Your task to perform on an android device: See recent photos Image 0: 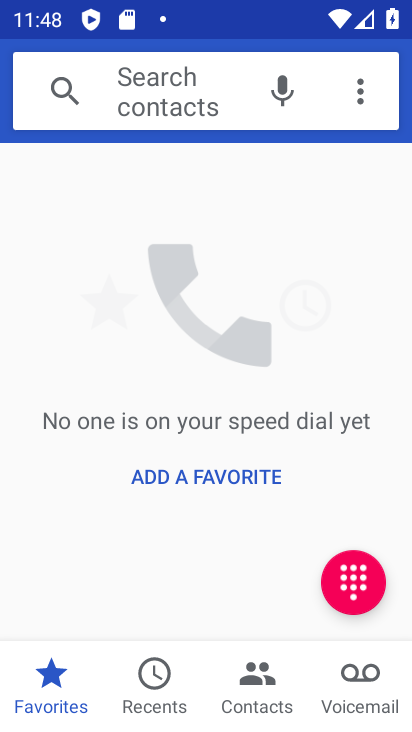
Step 0: press home button
Your task to perform on an android device: See recent photos Image 1: 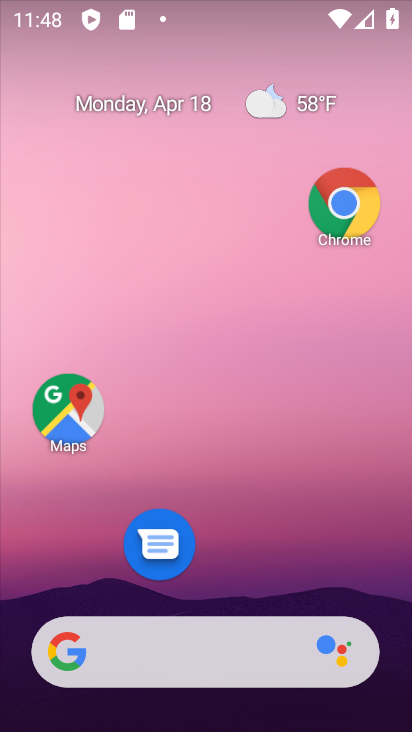
Step 1: drag from (260, 579) to (254, 40)
Your task to perform on an android device: See recent photos Image 2: 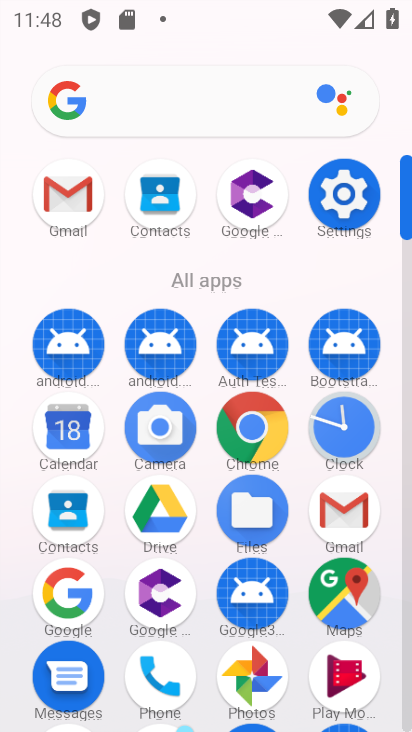
Step 2: click (261, 664)
Your task to perform on an android device: See recent photos Image 3: 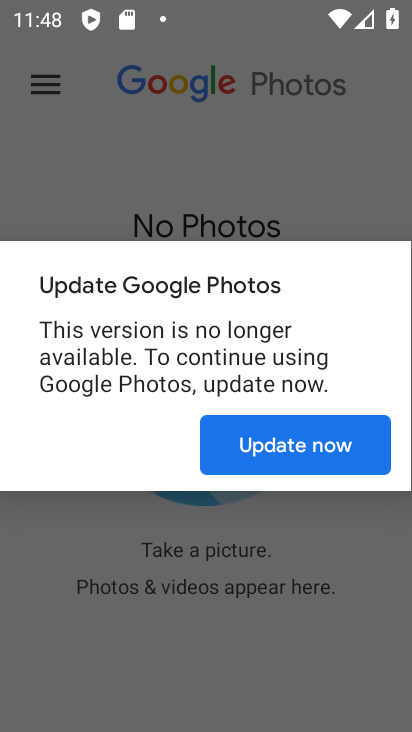
Step 3: click (324, 448)
Your task to perform on an android device: See recent photos Image 4: 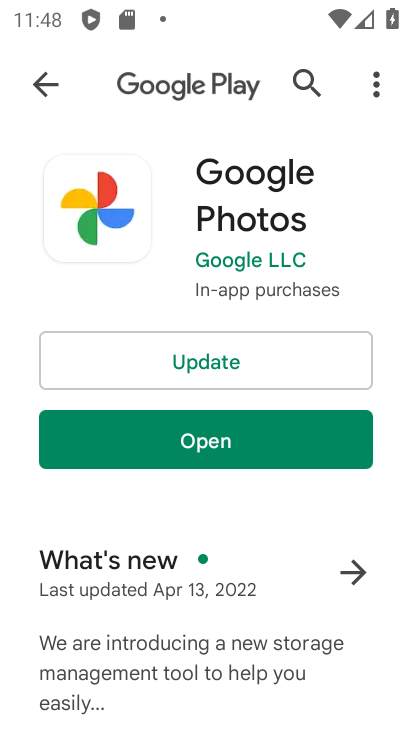
Step 4: click (231, 357)
Your task to perform on an android device: See recent photos Image 5: 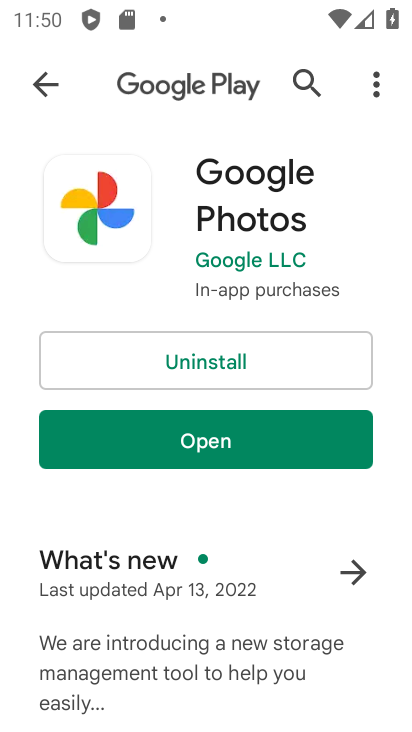
Step 5: click (232, 435)
Your task to perform on an android device: See recent photos Image 6: 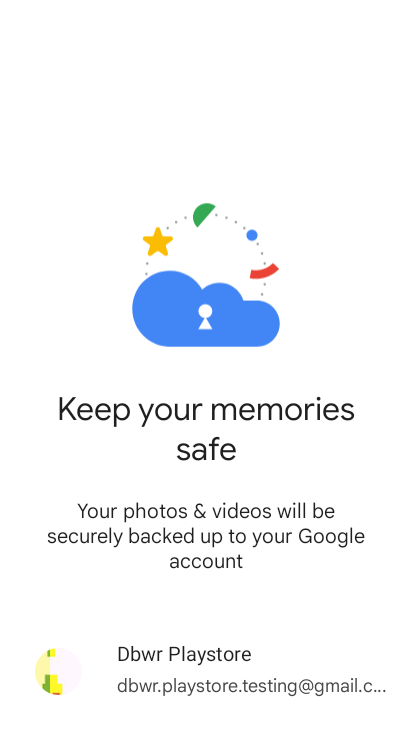
Step 6: drag from (306, 611) to (327, 272)
Your task to perform on an android device: See recent photos Image 7: 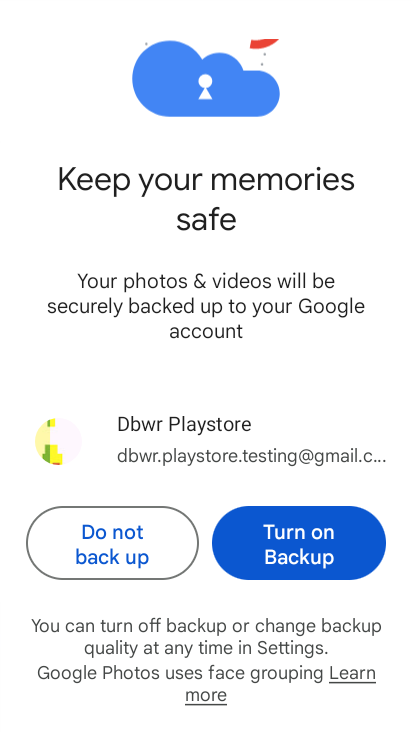
Step 7: click (314, 537)
Your task to perform on an android device: See recent photos Image 8: 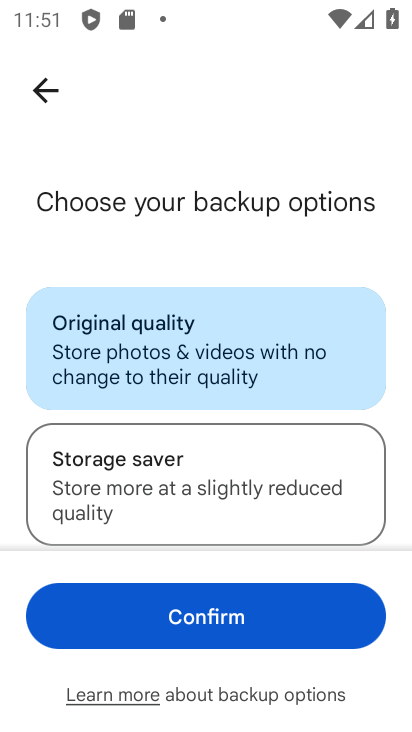
Step 8: click (279, 616)
Your task to perform on an android device: See recent photos Image 9: 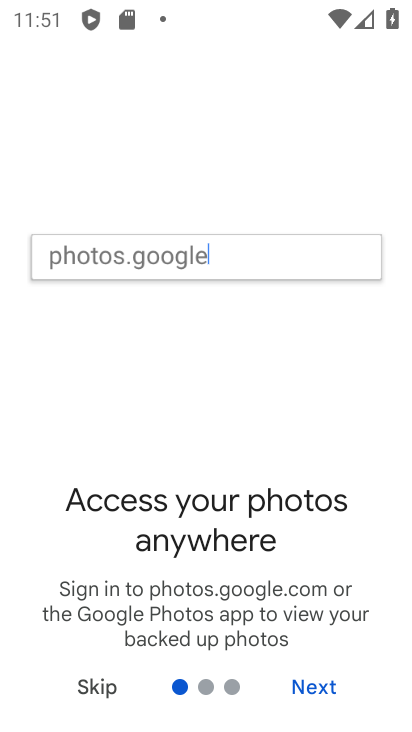
Step 9: click (314, 674)
Your task to perform on an android device: See recent photos Image 10: 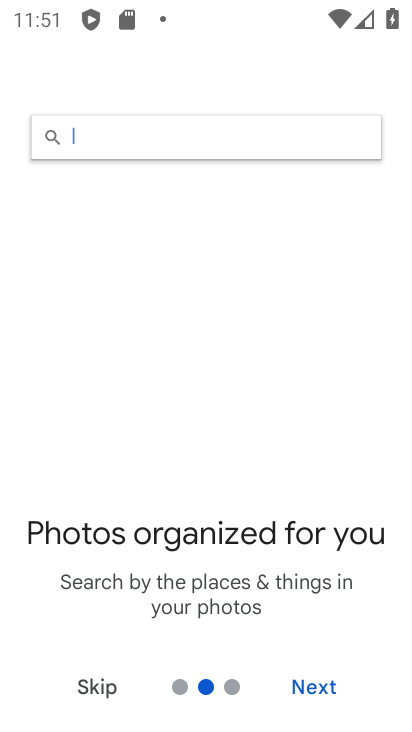
Step 10: click (317, 682)
Your task to perform on an android device: See recent photos Image 11: 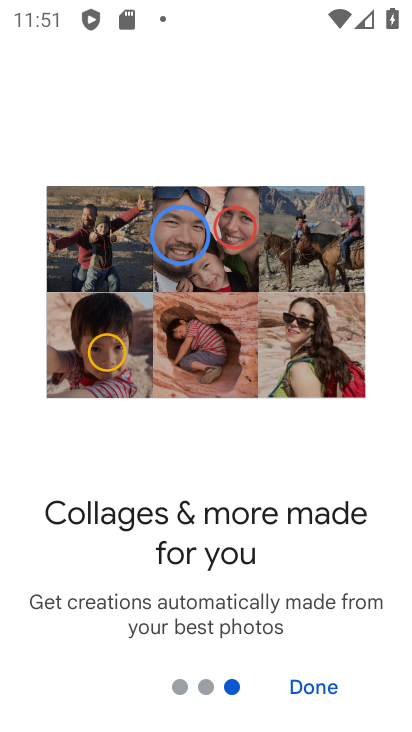
Step 11: click (317, 682)
Your task to perform on an android device: See recent photos Image 12: 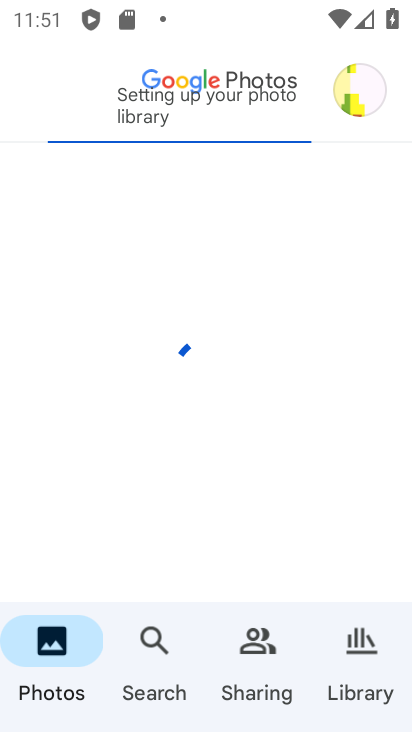
Step 12: click (155, 629)
Your task to perform on an android device: See recent photos Image 13: 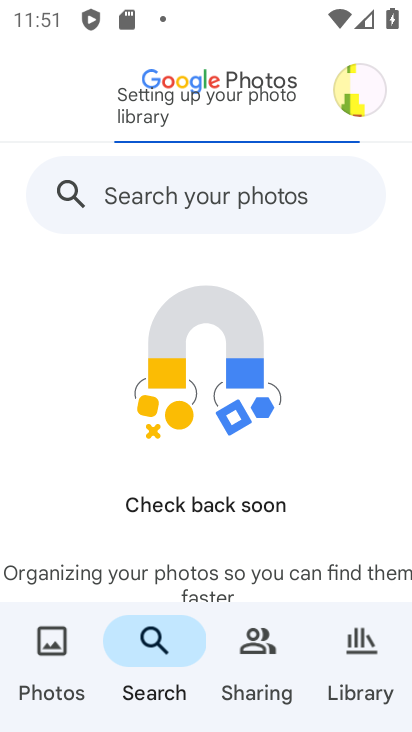
Step 13: drag from (290, 518) to (346, 237)
Your task to perform on an android device: See recent photos Image 14: 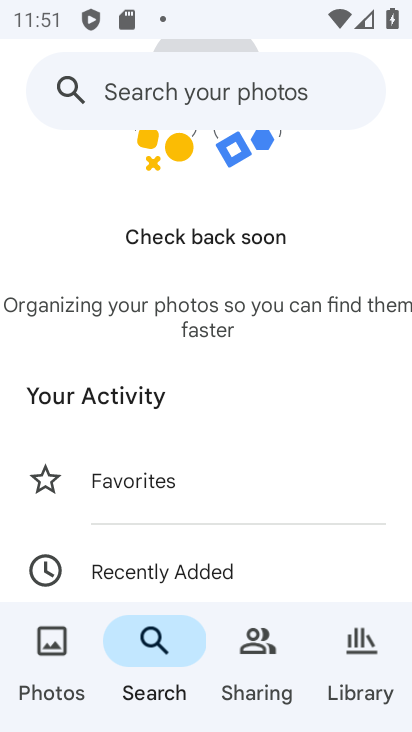
Step 14: drag from (214, 525) to (258, 291)
Your task to perform on an android device: See recent photos Image 15: 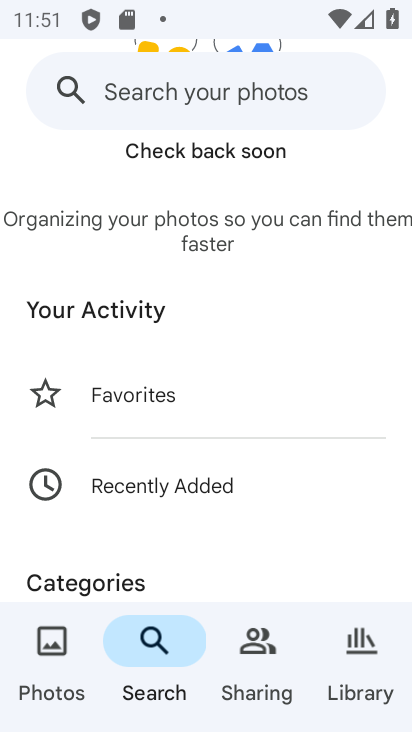
Step 15: click (213, 473)
Your task to perform on an android device: See recent photos Image 16: 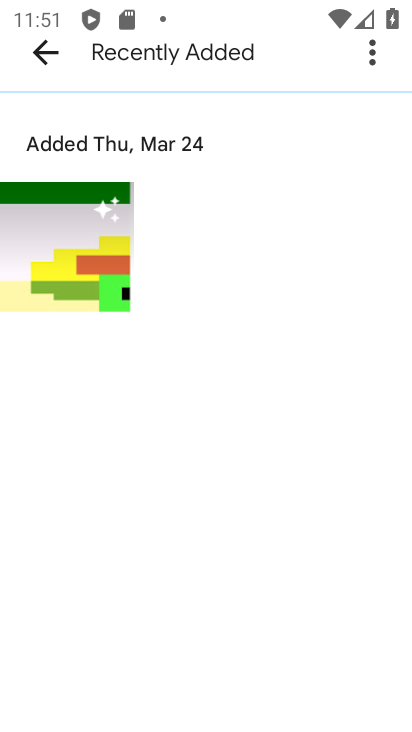
Step 16: task complete